Your task to perform on an android device: change the clock style Image 0: 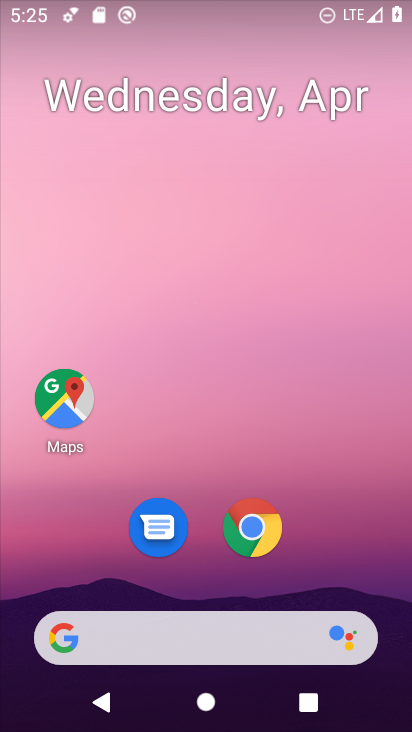
Step 0: drag from (378, 603) to (362, 4)
Your task to perform on an android device: change the clock style Image 1: 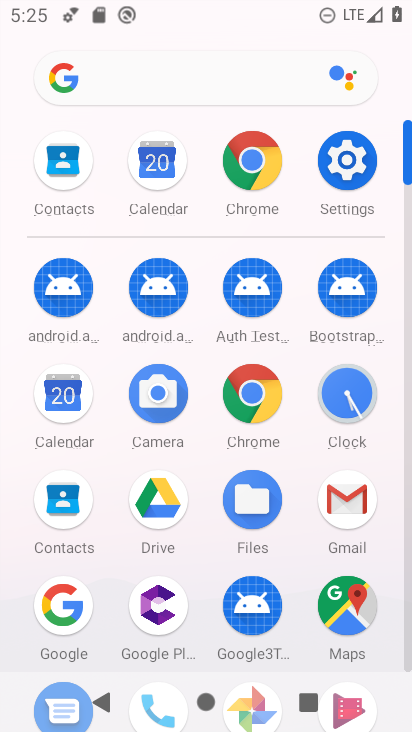
Step 1: click (340, 401)
Your task to perform on an android device: change the clock style Image 2: 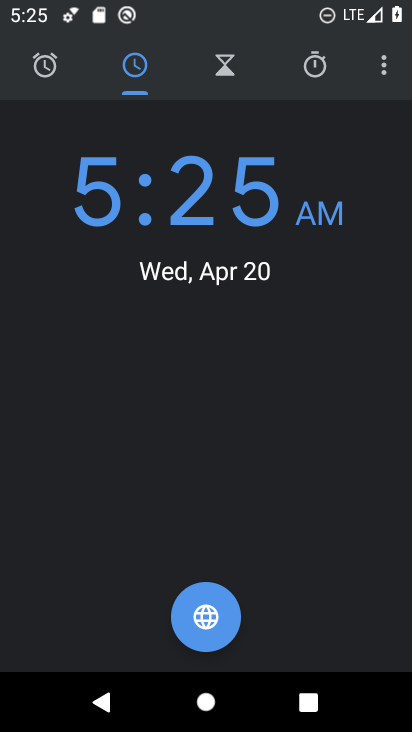
Step 2: click (385, 68)
Your task to perform on an android device: change the clock style Image 3: 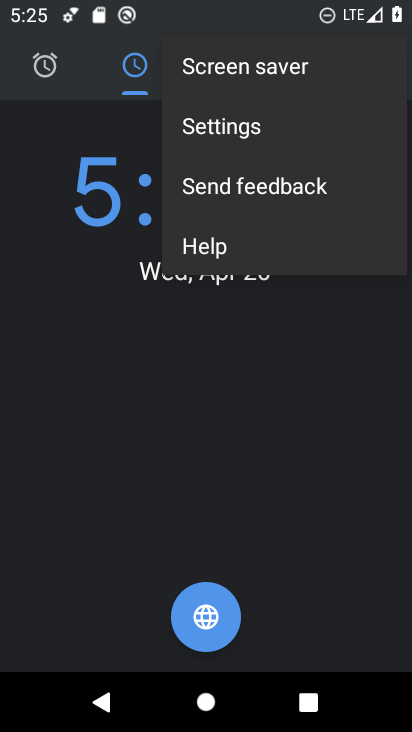
Step 3: click (272, 132)
Your task to perform on an android device: change the clock style Image 4: 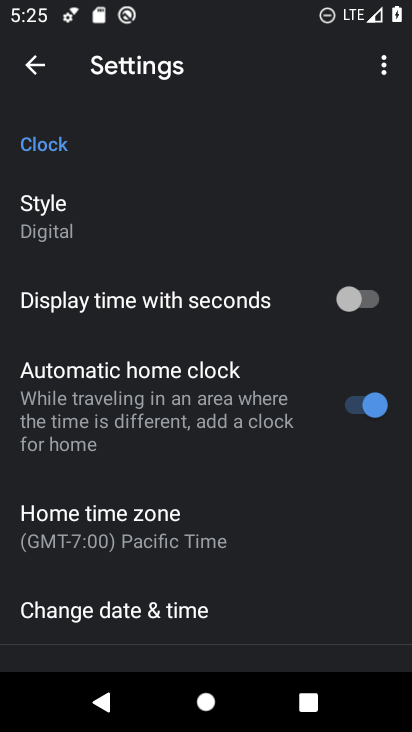
Step 4: click (66, 216)
Your task to perform on an android device: change the clock style Image 5: 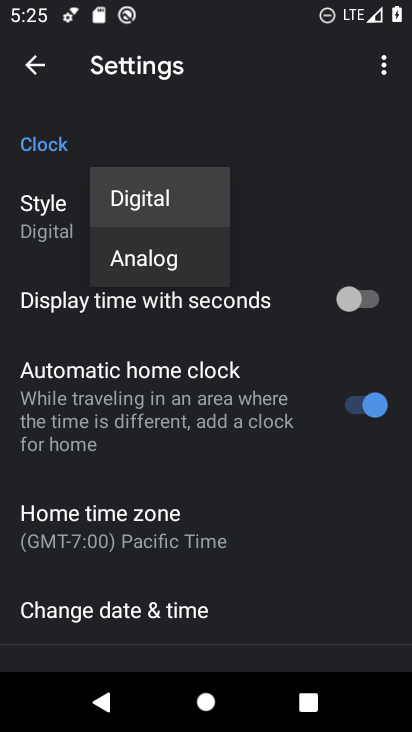
Step 5: click (116, 258)
Your task to perform on an android device: change the clock style Image 6: 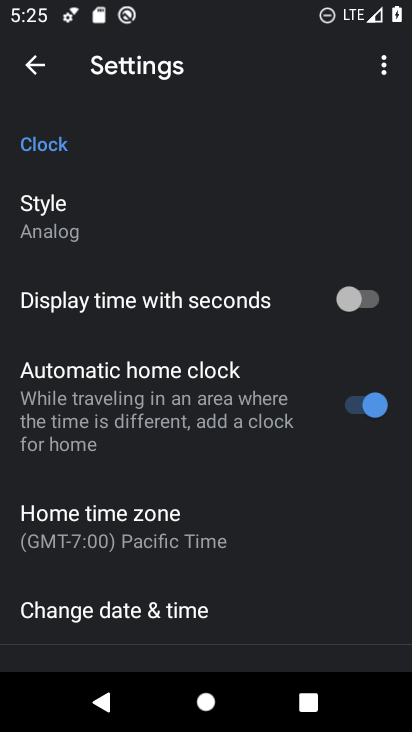
Step 6: task complete